Your task to perform on an android device: toggle translation in the chrome app Image 0: 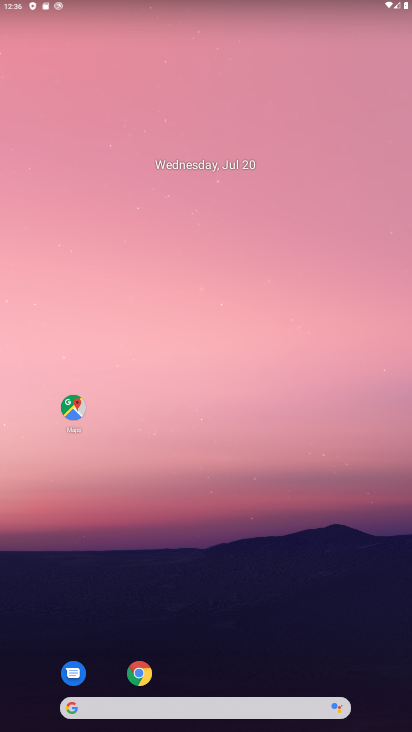
Step 0: click (133, 668)
Your task to perform on an android device: toggle translation in the chrome app Image 1: 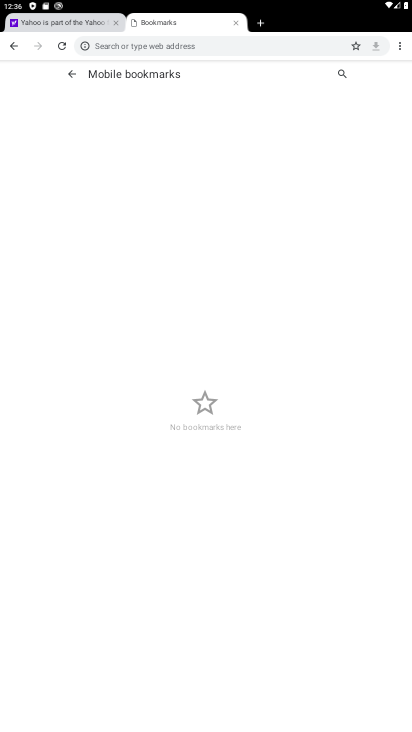
Step 1: click (397, 52)
Your task to perform on an android device: toggle translation in the chrome app Image 2: 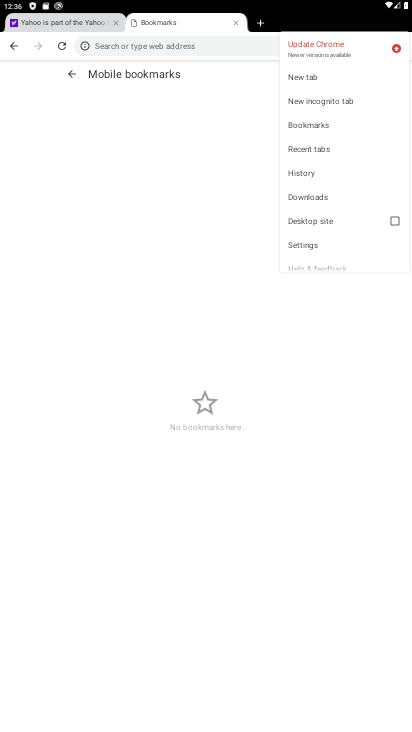
Step 2: click (310, 250)
Your task to perform on an android device: toggle translation in the chrome app Image 3: 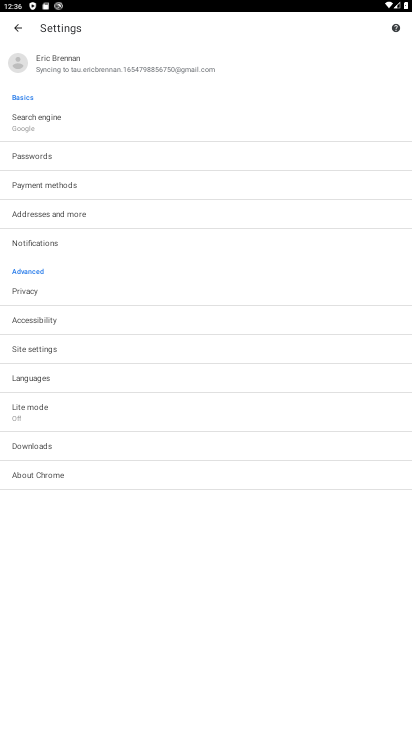
Step 3: click (61, 387)
Your task to perform on an android device: toggle translation in the chrome app Image 4: 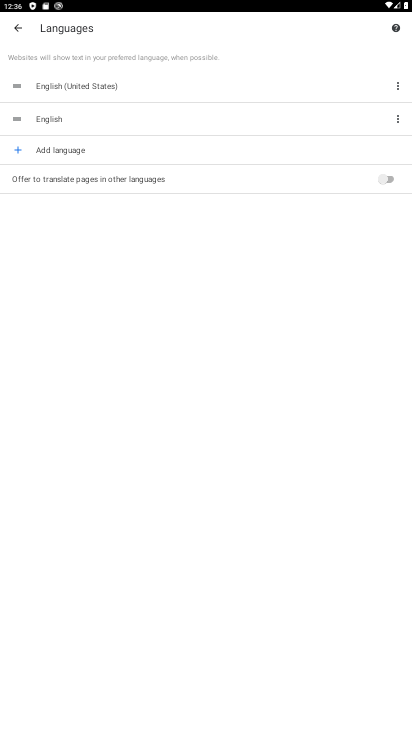
Step 4: click (380, 185)
Your task to perform on an android device: toggle translation in the chrome app Image 5: 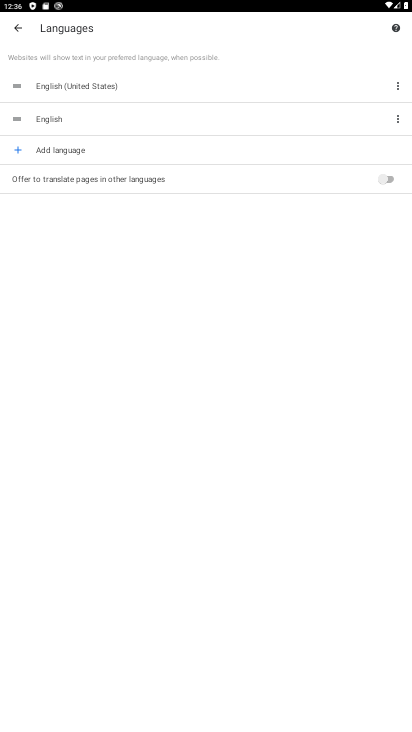
Step 5: click (380, 185)
Your task to perform on an android device: toggle translation in the chrome app Image 6: 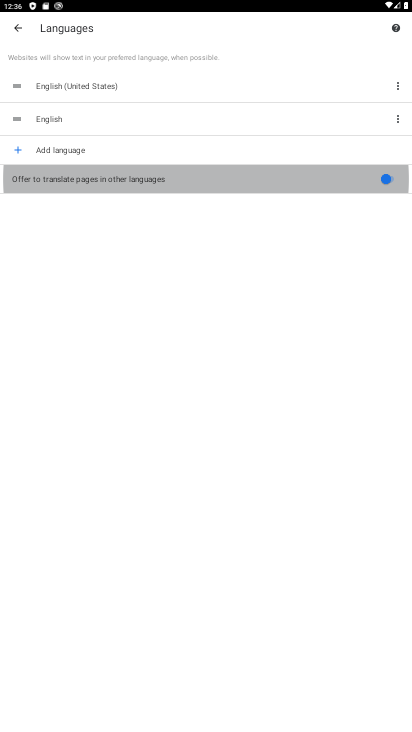
Step 6: click (380, 185)
Your task to perform on an android device: toggle translation in the chrome app Image 7: 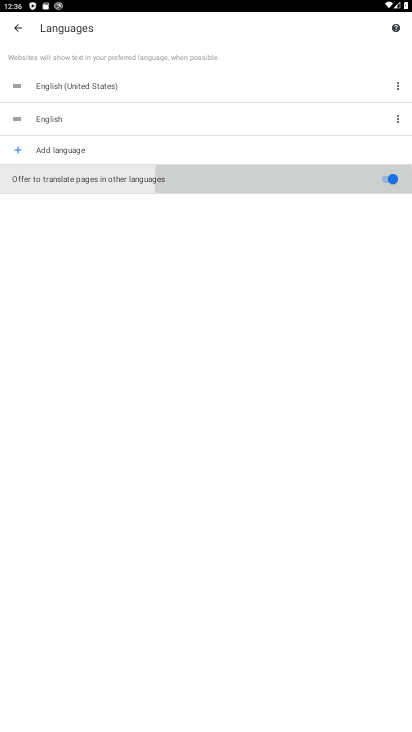
Step 7: click (380, 185)
Your task to perform on an android device: toggle translation in the chrome app Image 8: 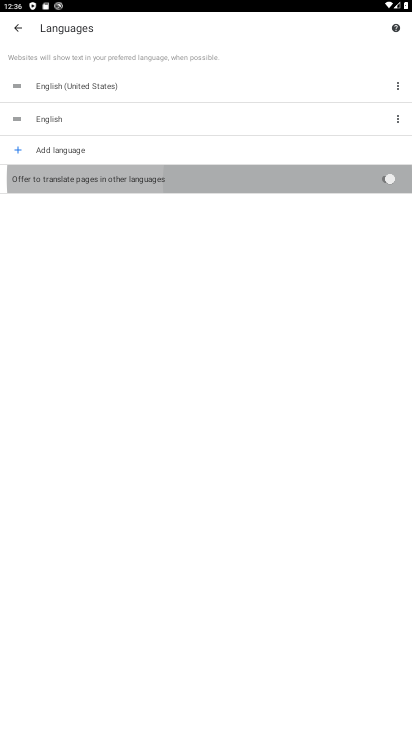
Step 8: click (380, 185)
Your task to perform on an android device: toggle translation in the chrome app Image 9: 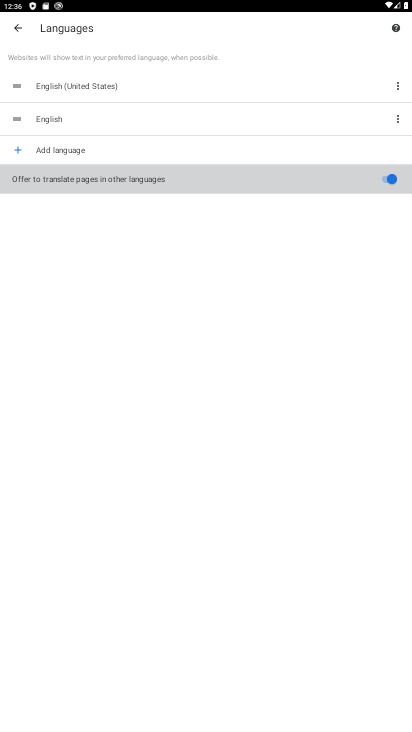
Step 9: click (380, 185)
Your task to perform on an android device: toggle translation in the chrome app Image 10: 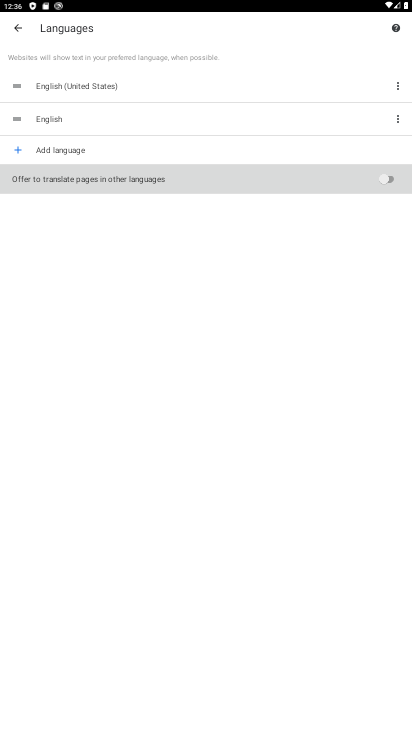
Step 10: click (380, 185)
Your task to perform on an android device: toggle translation in the chrome app Image 11: 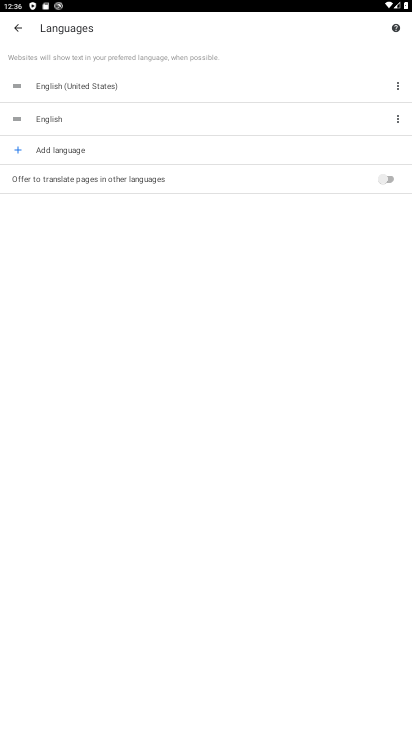
Step 11: click (380, 185)
Your task to perform on an android device: toggle translation in the chrome app Image 12: 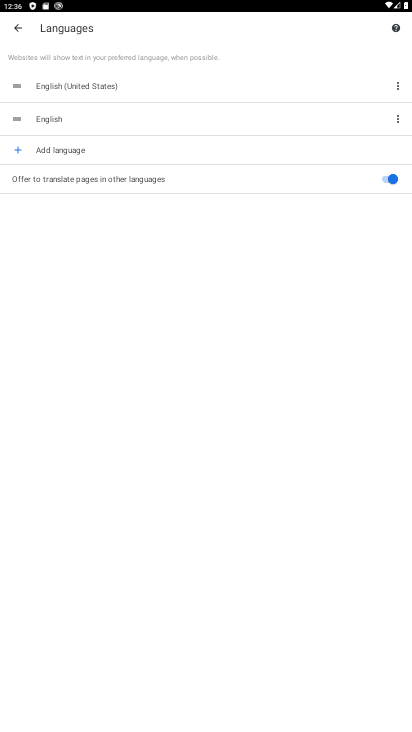
Step 12: click (380, 185)
Your task to perform on an android device: toggle translation in the chrome app Image 13: 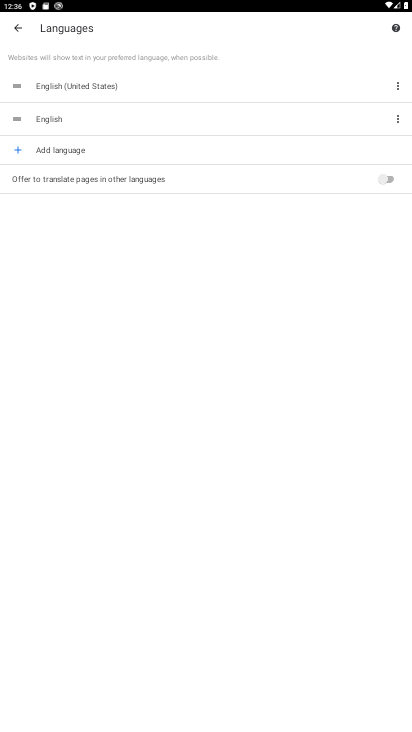
Step 13: task complete